Your task to perform on an android device: Open Maps and search for coffee Image 0: 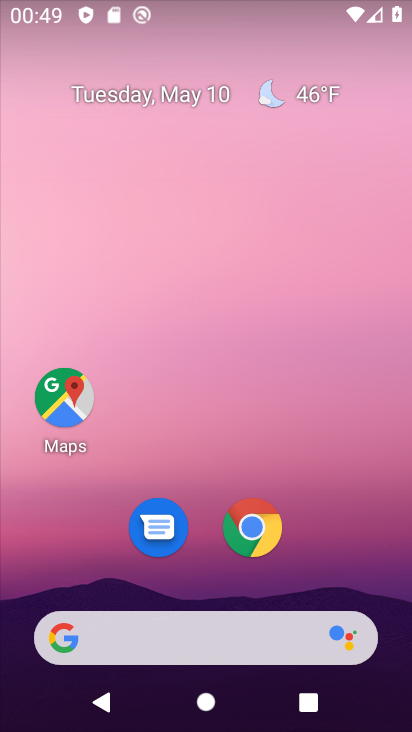
Step 0: click (67, 397)
Your task to perform on an android device: Open Maps and search for coffee Image 1: 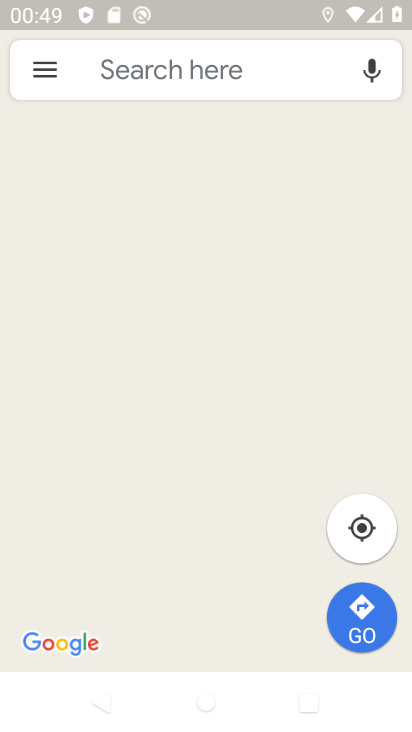
Step 1: click (188, 74)
Your task to perform on an android device: Open Maps and search for coffee Image 2: 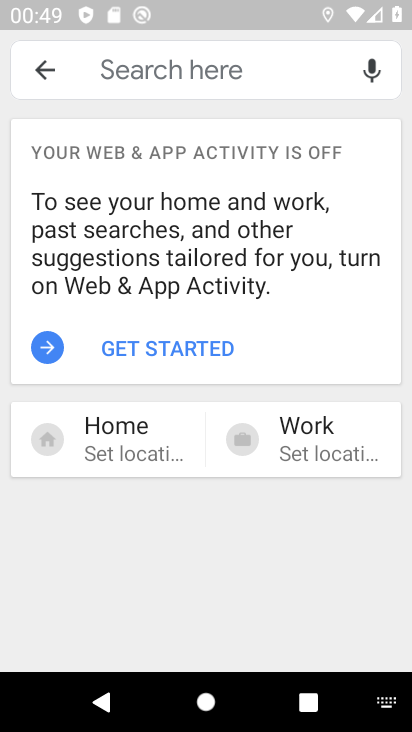
Step 2: type "coffee"
Your task to perform on an android device: Open Maps and search for coffee Image 3: 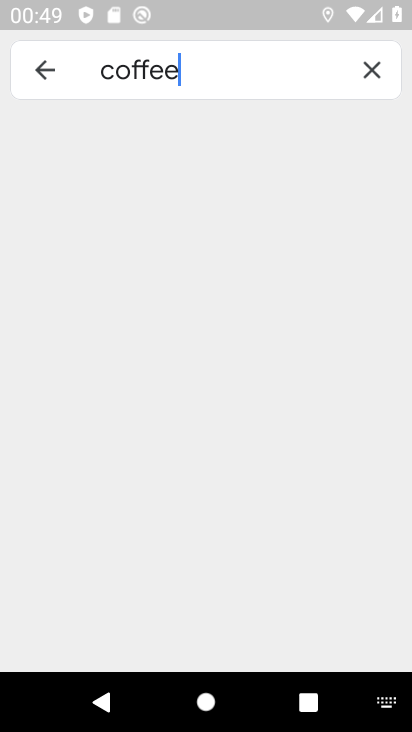
Step 3: drag from (195, 395) to (196, 187)
Your task to perform on an android device: Open Maps and search for coffee Image 4: 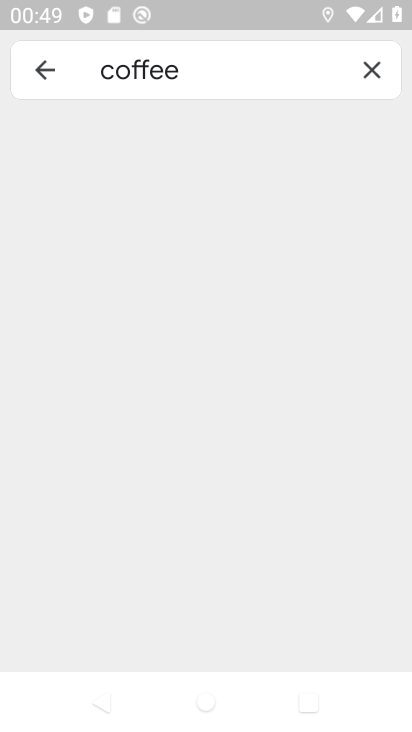
Step 4: click (179, 68)
Your task to perform on an android device: Open Maps and search for coffee Image 5: 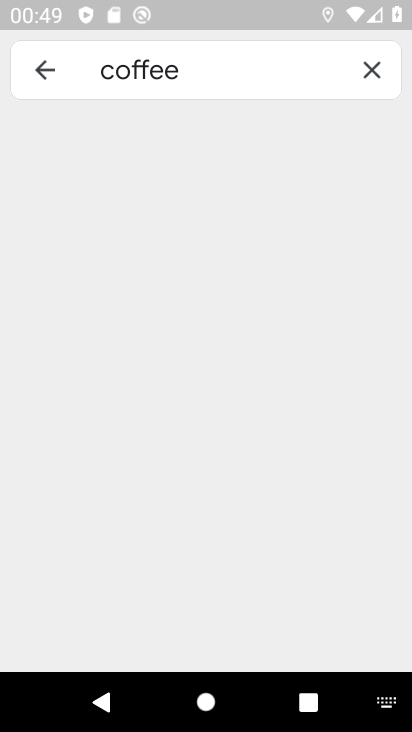
Step 5: task complete